Your task to perform on an android device: turn off sleep mode Image 0: 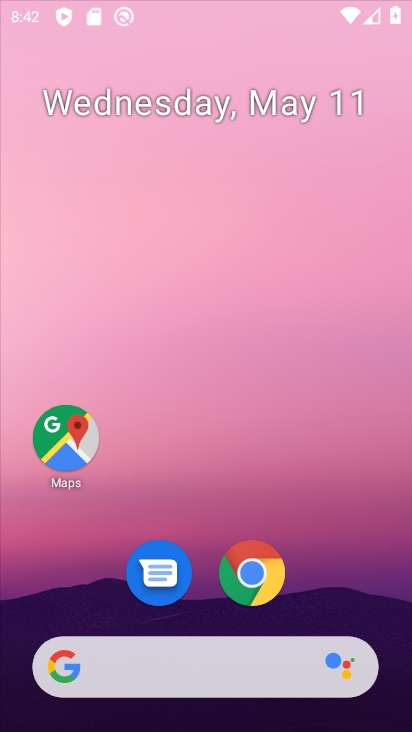
Step 0: click (330, 149)
Your task to perform on an android device: turn off sleep mode Image 1: 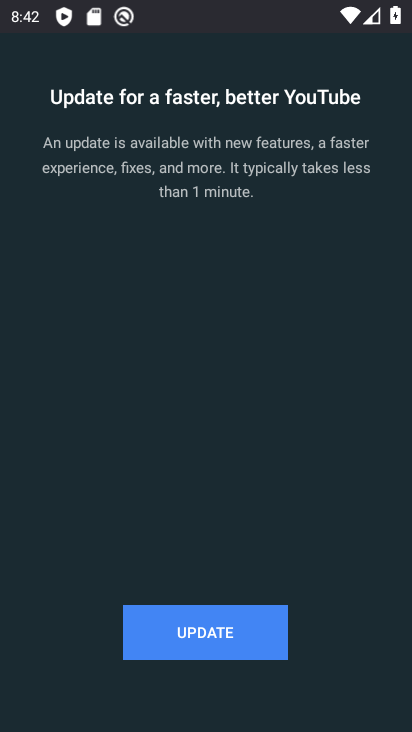
Step 1: press back button
Your task to perform on an android device: turn off sleep mode Image 2: 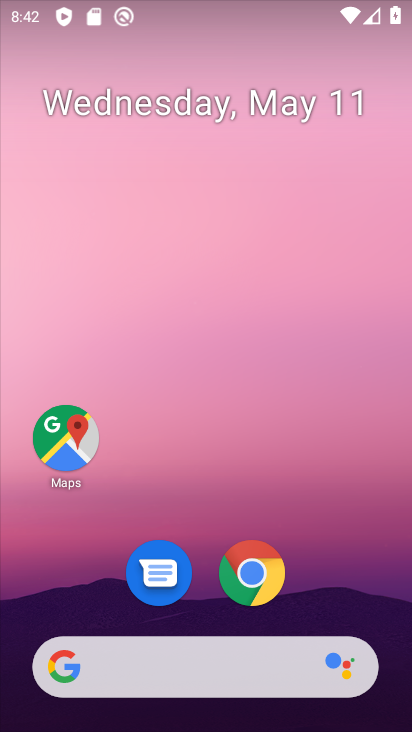
Step 2: drag from (320, 551) to (315, 121)
Your task to perform on an android device: turn off sleep mode Image 3: 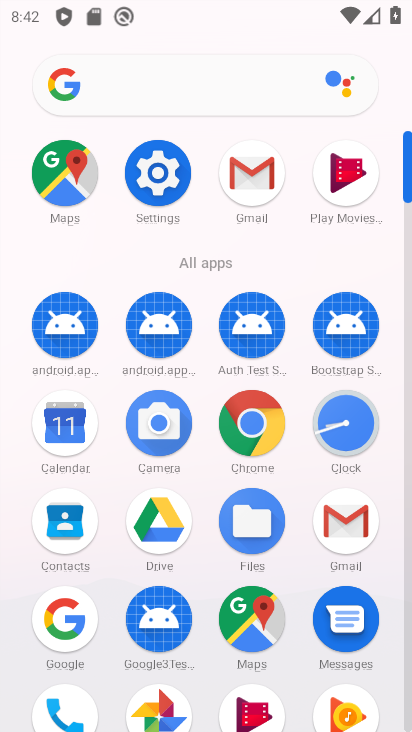
Step 3: click (159, 197)
Your task to perform on an android device: turn off sleep mode Image 4: 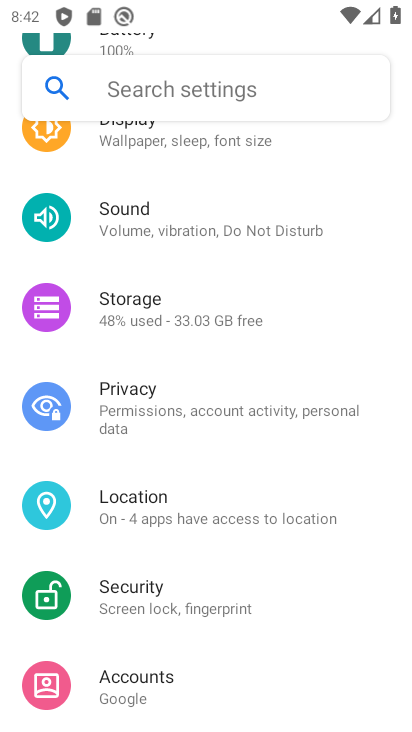
Step 4: click (211, 128)
Your task to perform on an android device: turn off sleep mode Image 5: 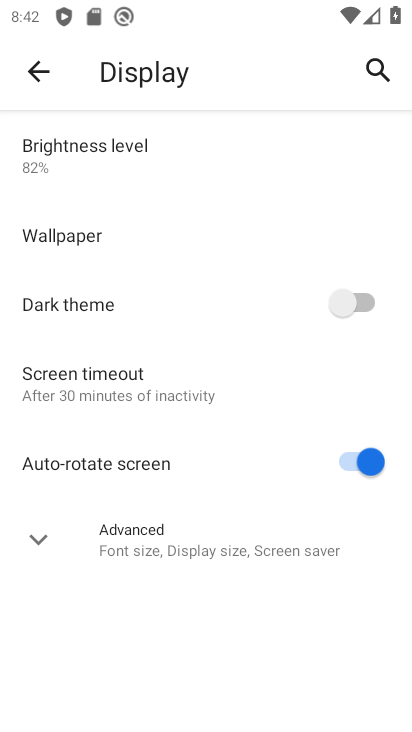
Step 5: click (102, 368)
Your task to perform on an android device: turn off sleep mode Image 6: 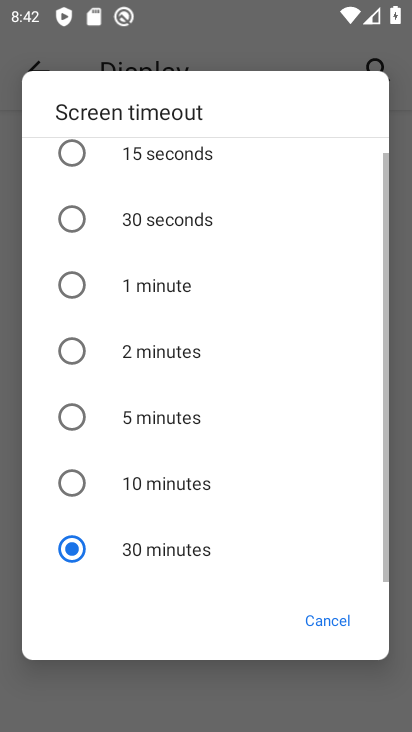
Step 6: click (158, 166)
Your task to perform on an android device: turn off sleep mode Image 7: 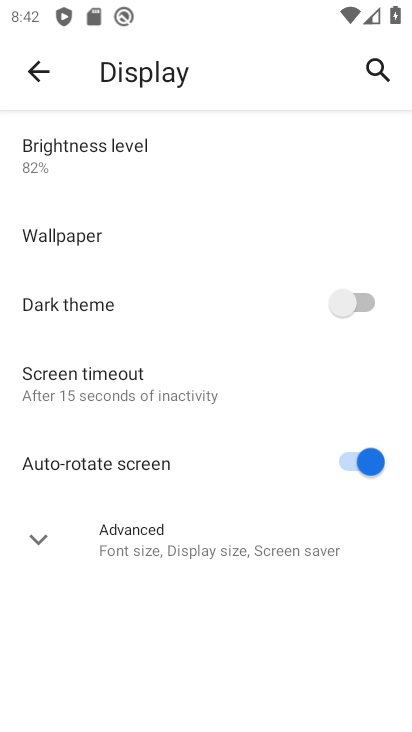
Step 7: task complete